Your task to perform on an android device: Open eBay Image 0: 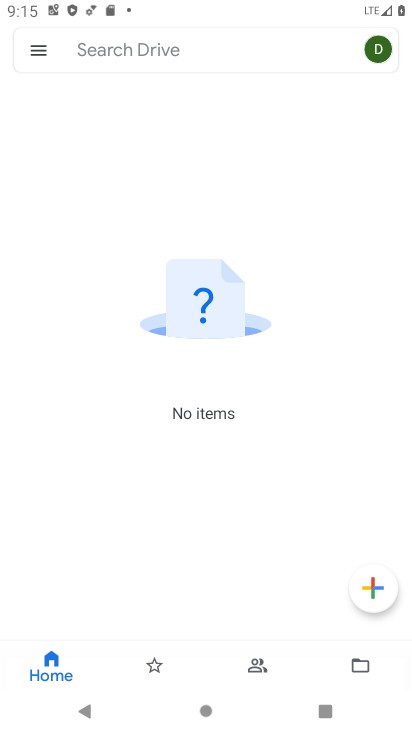
Step 0: press home button
Your task to perform on an android device: Open eBay Image 1: 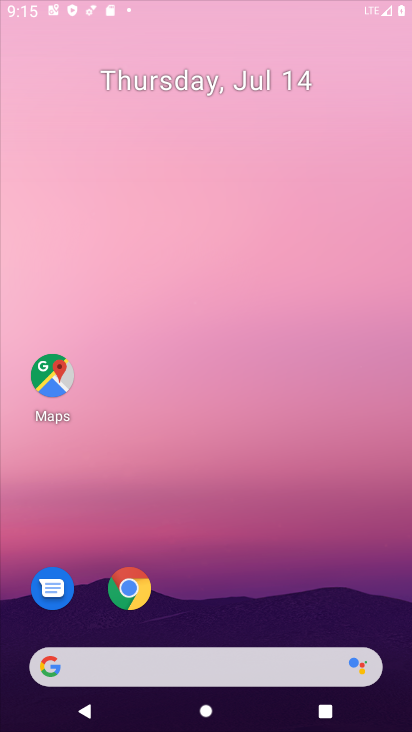
Step 1: drag from (406, 644) to (219, 50)
Your task to perform on an android device: Open eBay Image 2: 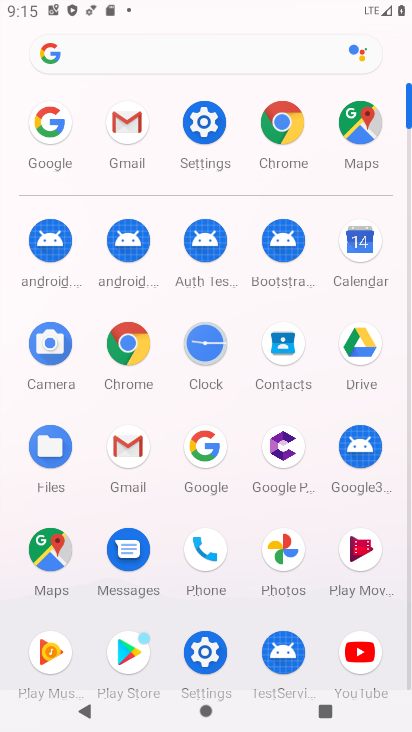
Step 2: click (213, 438)
Your task to perform on an android device: Open eBay Image 3: 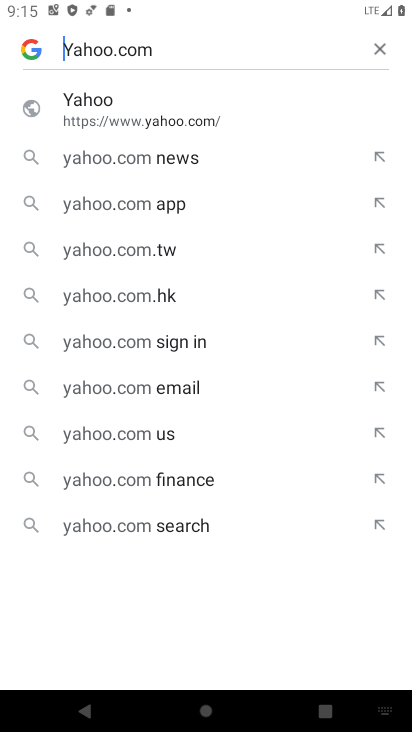
Step 3: click (374, 47)
Your task to perform on an android device: Open eBay Image 4: 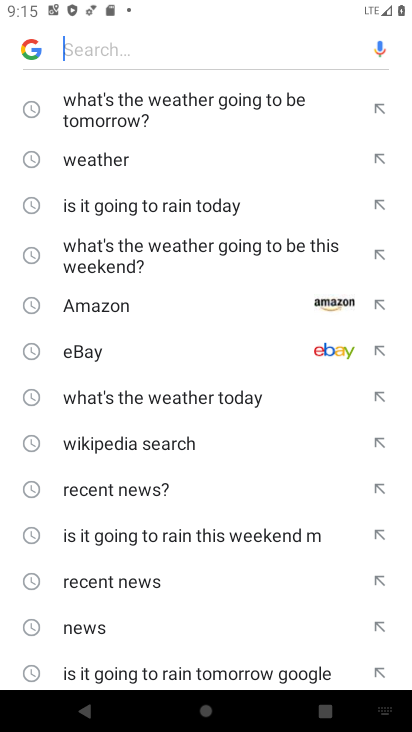
Step 4: click (87, 357)
Your task to perform on an android device: Open eBay Image 5: 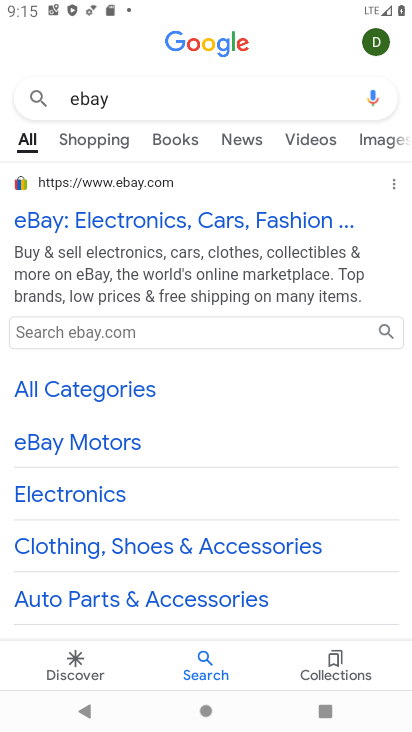
Step 5: task complete